Your task to perform on an android device: View the shopping cart on newegg. Add "sony triple a" to the cart on newegg Image 0: 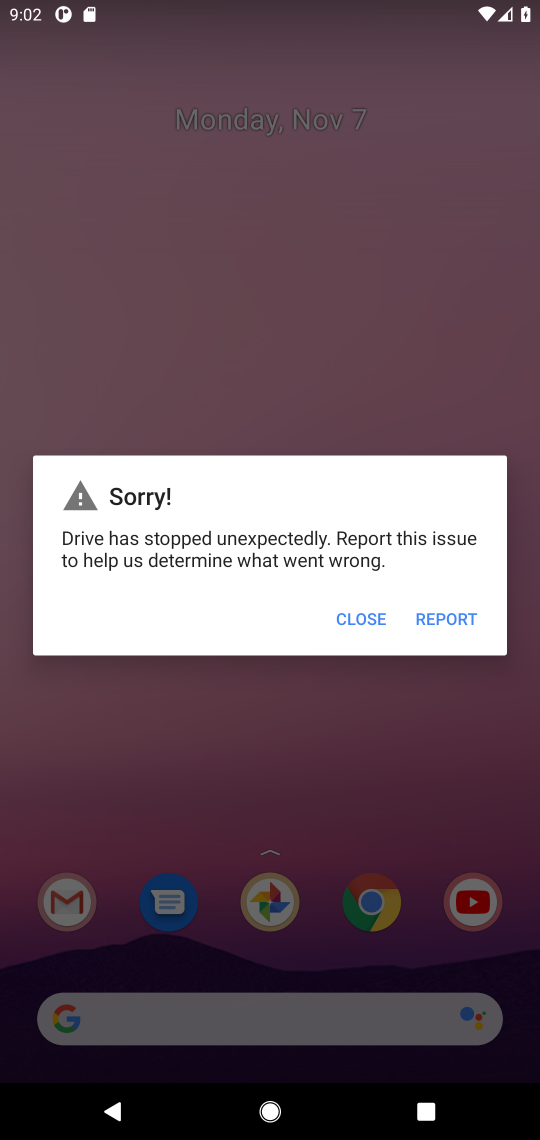
Step 0: press home button
Your task to perform on an android device: View the shopping cart on newegg. Add "sony triple a" to the cart on newegg Image 1: 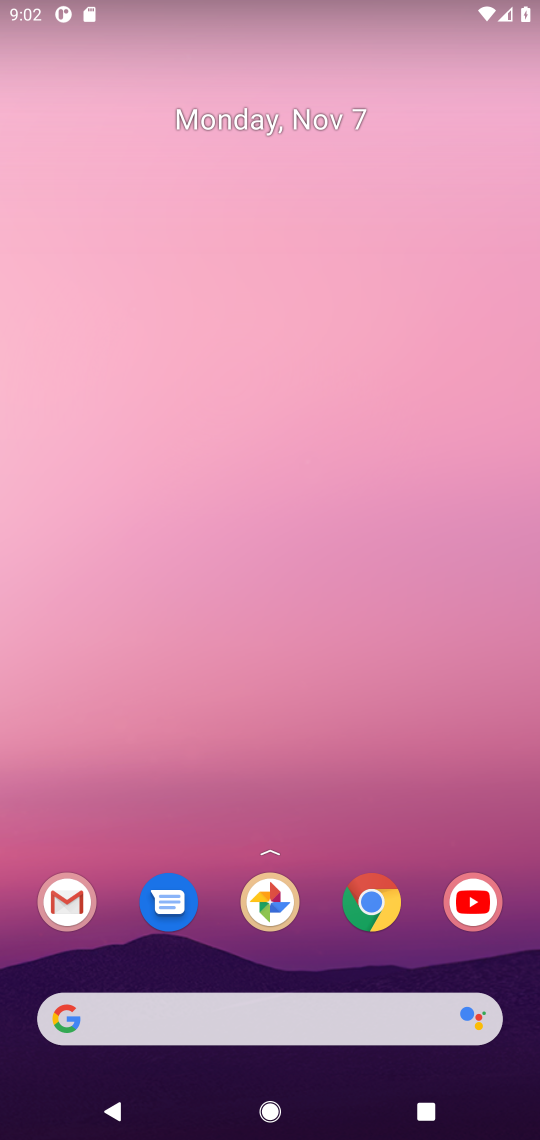
Step 1: click (381, 924)
Your task to perform on an android device: View the shopping cart on newegg. Add "sony triple a" to the cart on newegg Image 2: 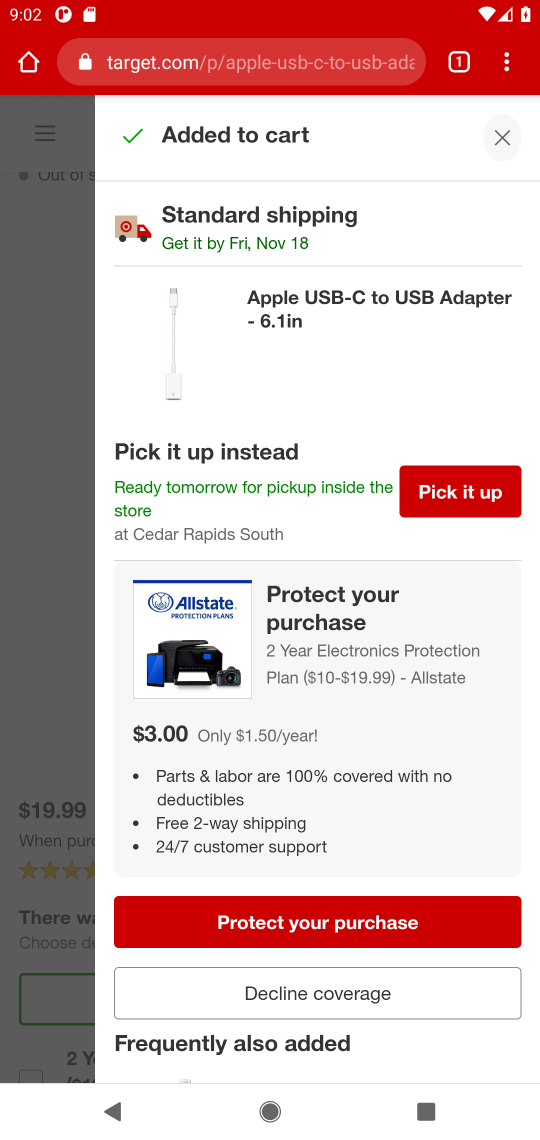
Step 2: click (214, 70)
Your task to perform on an android device: View the shopping cart on newegg. Add "sony triple a" to the cart on newegg Image 3: 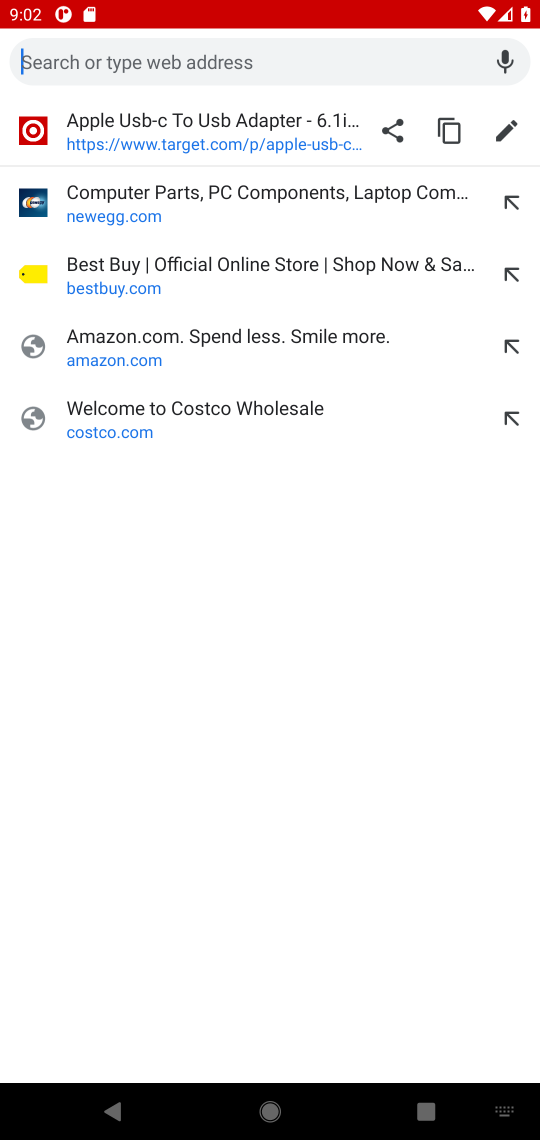
Step 3: click (153, 206)
Your task to perform on an android device: View the shopping cart on newegg. Add "sony triple a" to the cart on newegg Image 4: 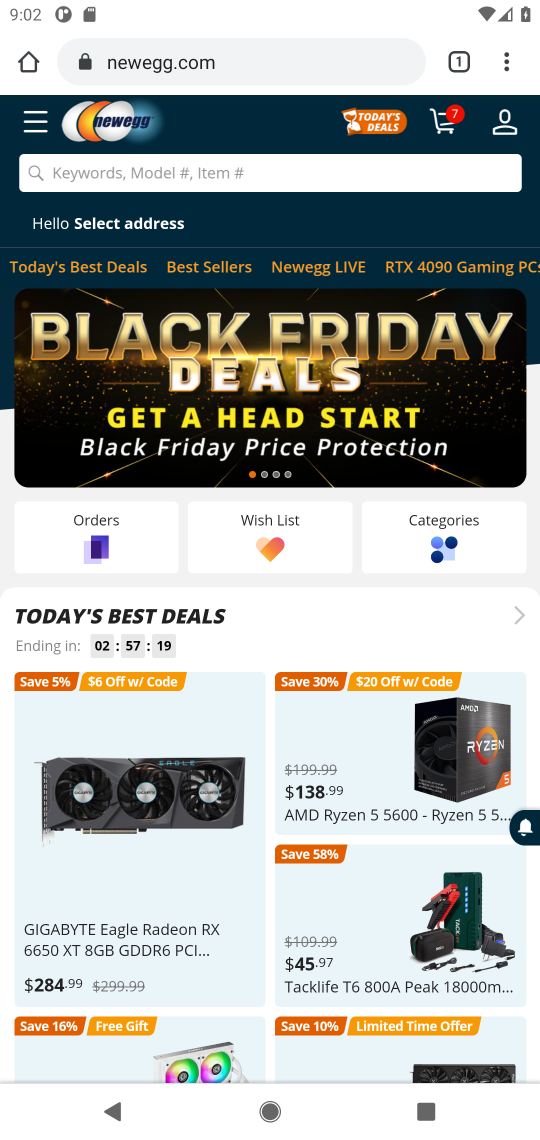
Step 4: click (447, 113)
Your task to perform on an android device: View the shopping cart on newegg. Add "sony triple a" to the cart on newegg Image 5: 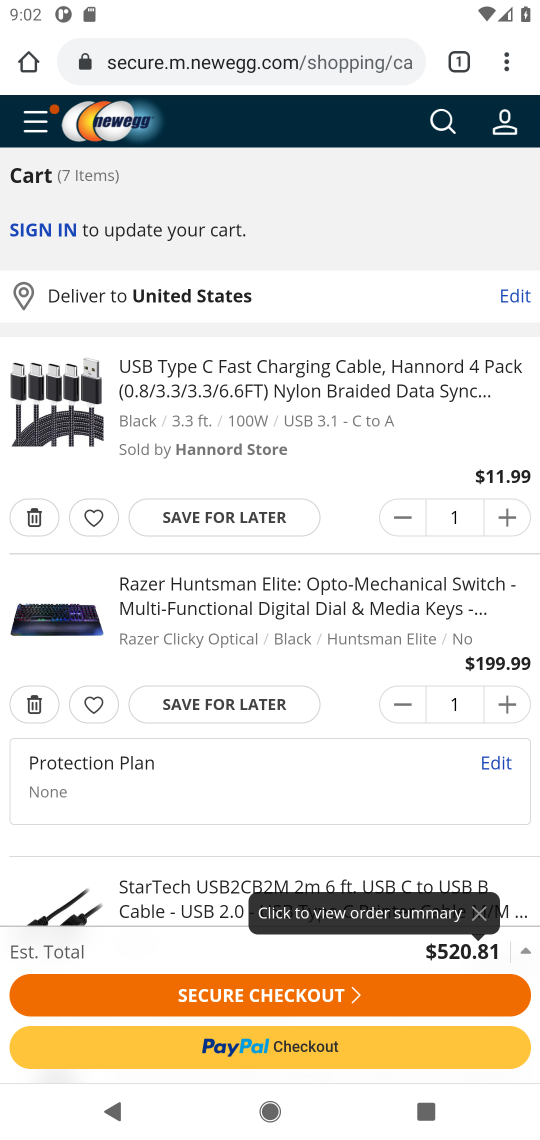
Step 5: click (439, 125)
Your task to perform on an android device: View the shopping cart on newegg. Add "sony triple a" to the cart on newegg Image 6: 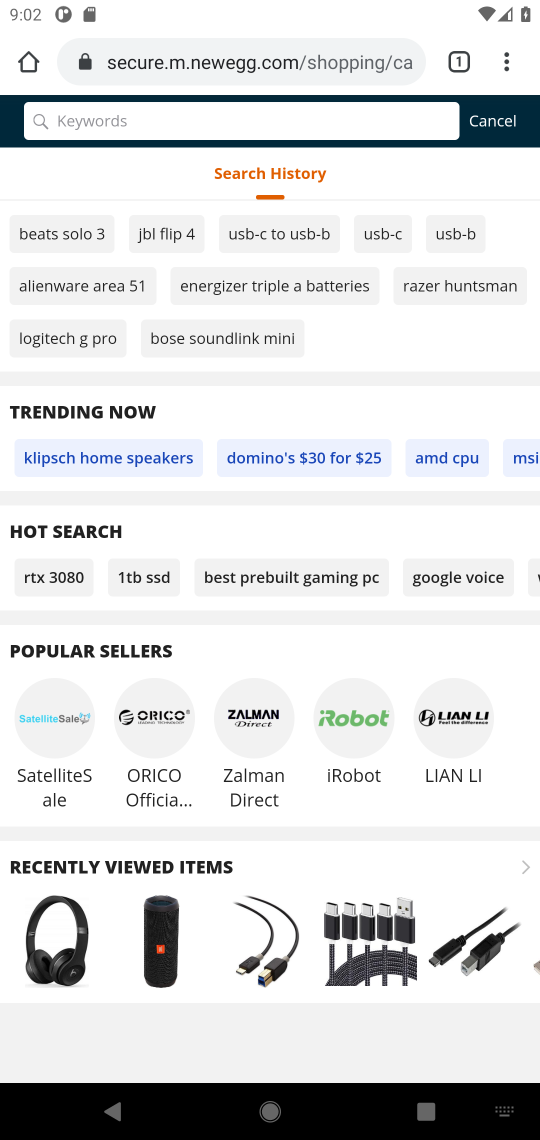
Step 6: type "sony triple a"
Your task to perform on an android device: View the shopping cart on newegg. Add "sony triple a" to the cart on newegg Image 7: 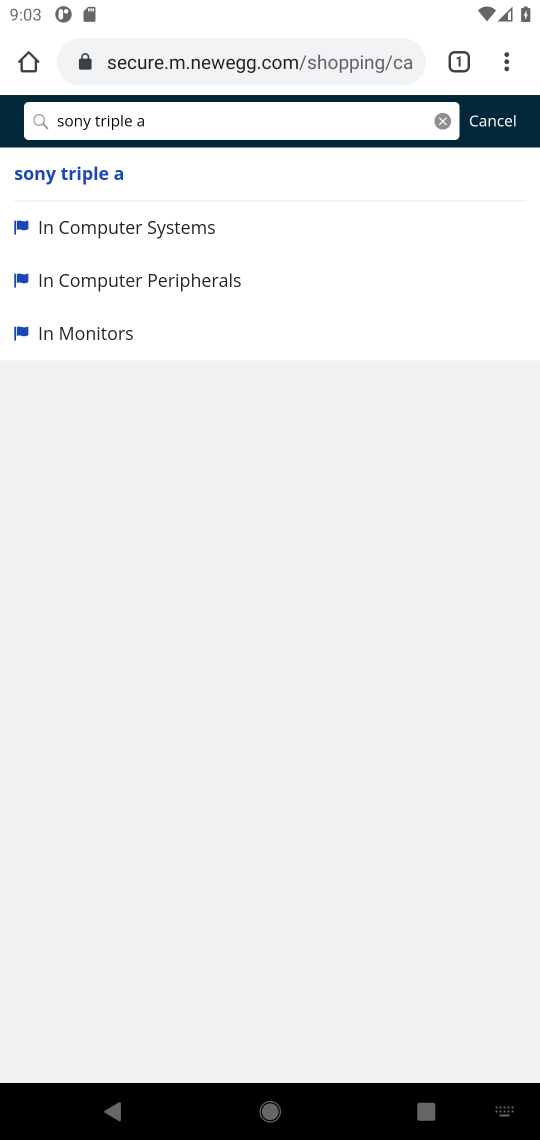
Step 7: click (88, 177)
Your task to perform on an android device: View the shopping cart on newegg. Add "sony triple a" to the cart on newegg Image 8: 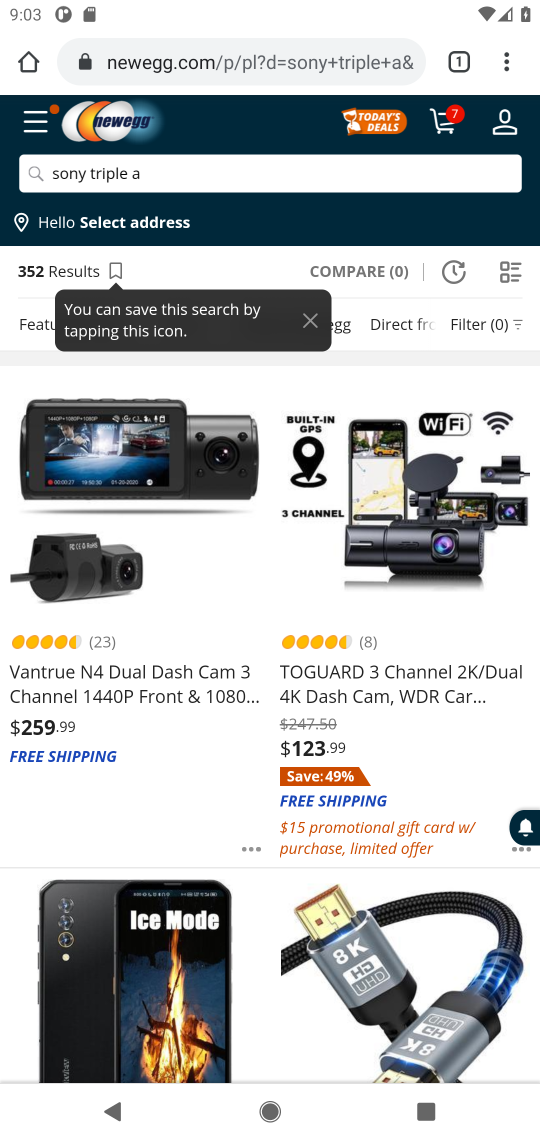
Step 8: task complete